Your task to perform on an android device: empty trash in google photos Image 0: 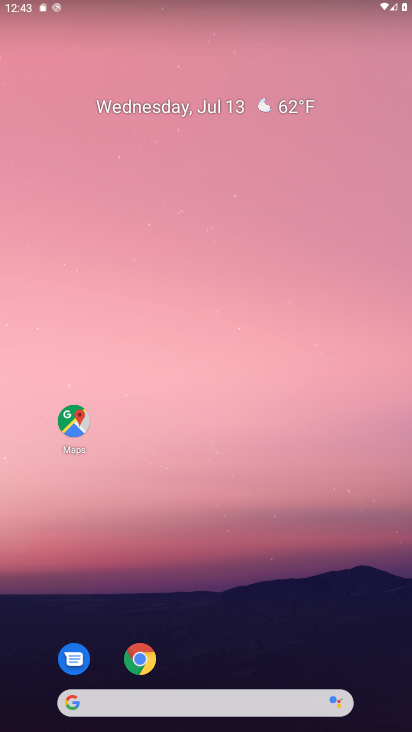
Step 0: drag from (253, 712) to (201, 320)
Your task to perform on an android device: empty trash in google photos Image 1: 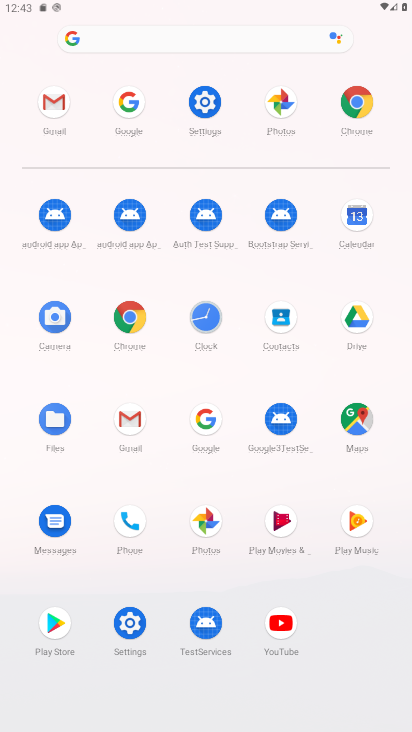
Step 1: click (198, 522)
Your task to perform on an android device: empty trash in google photos Image 2: 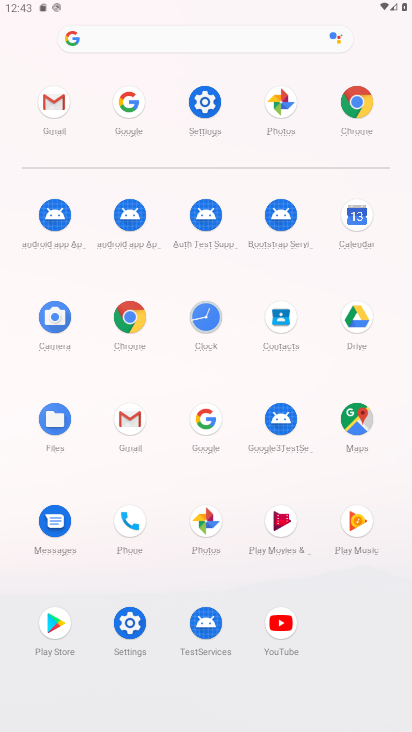
Step 2: click (199, 522)
Your task to perform on an android device: empty trash in google photos Image 3: 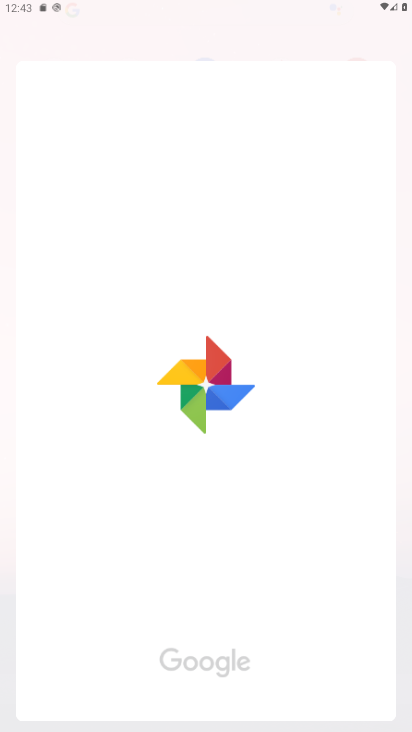
Step 3: click (201, 522)
Your task to perform on an android device: empty trash in google photos Image 4: 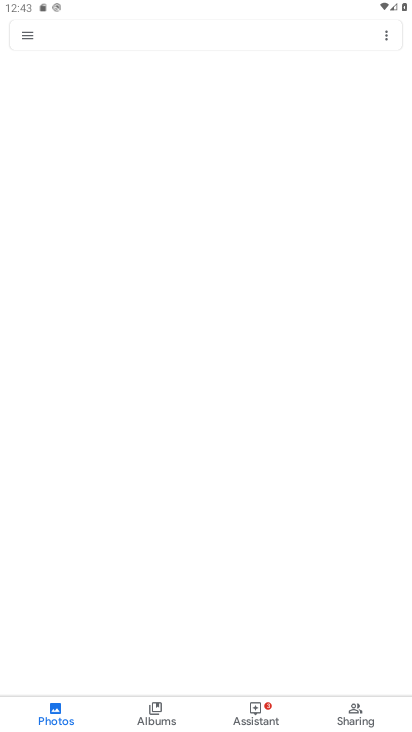
Step 4: click (202, 521)
Your task to perform on an android device: empty trash in google photos Image 5: 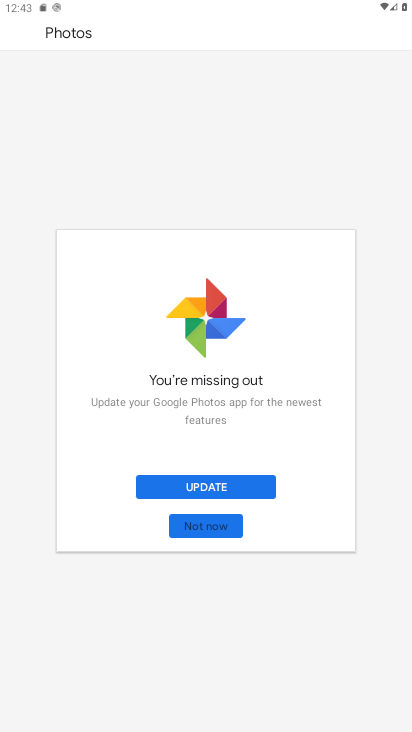
Step 5: click (198, 530)
Your task to perform on an android device: empty trash in google photos Image 6: 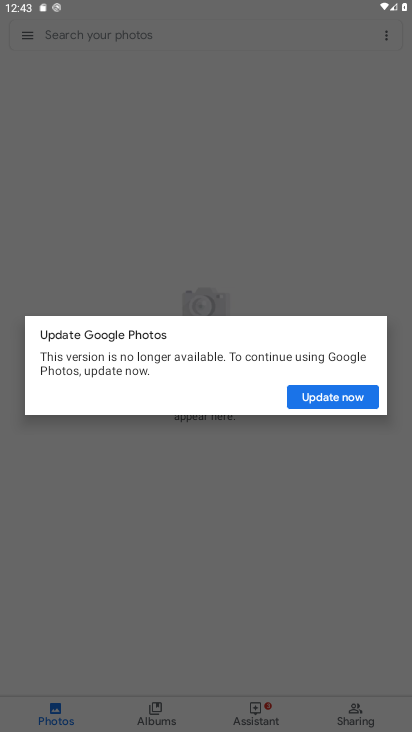
Step 6: click (237, 239)
Your task to perform on an android device: empty trash in google photos Image 7: 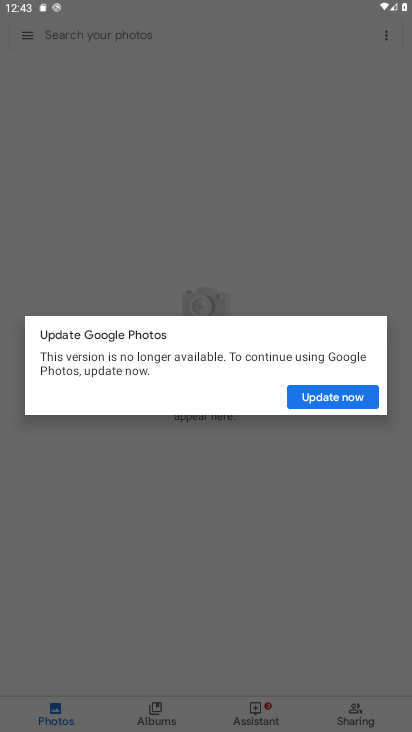
Step 7: click (62, 709)
Your task to perform on an android device: empty trash in google photos Image 8: 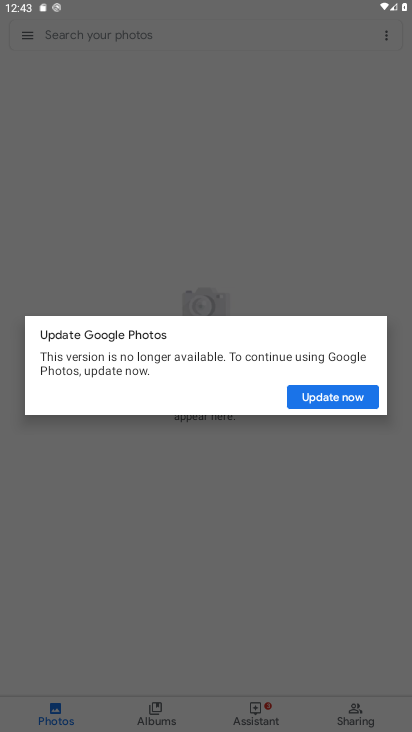
Step 8: click (320, 150)
Your task to perform on an android device: empty trash in google photos Image 9: 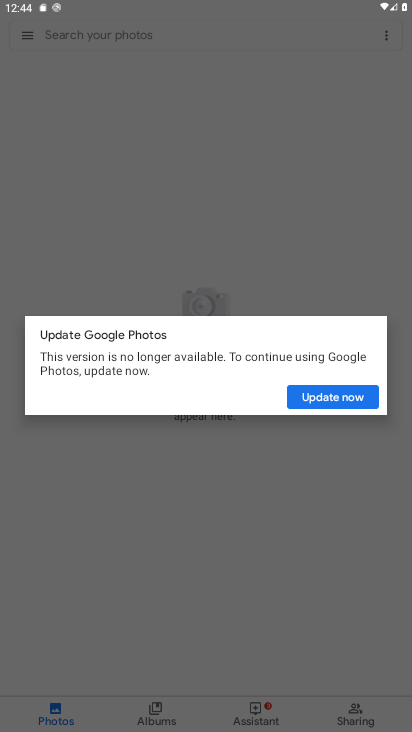
Step 9: press back button
Your task to perform on an android device: empty trash in google photos Image 10: 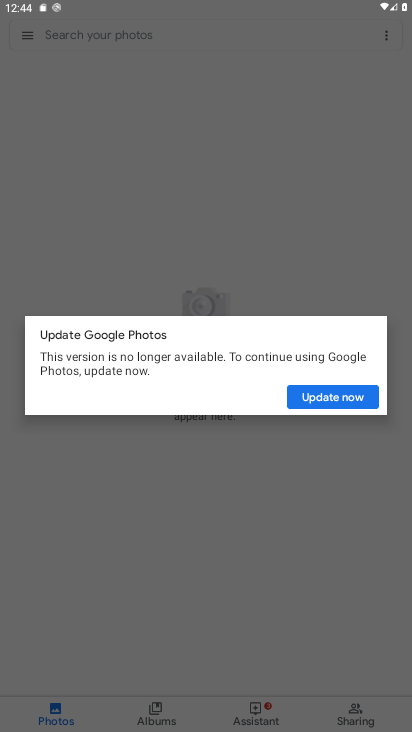
Step 10: press home button
Your task to perform on an android device: empty trash in google photos Image 11: 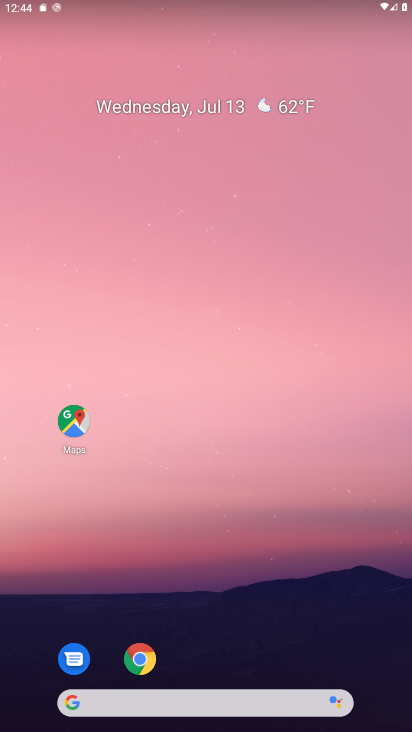
Step 11: drag from (237, 619) to (190, 155)
Your task to perform on an android device: empty trash in google photos Image 12: 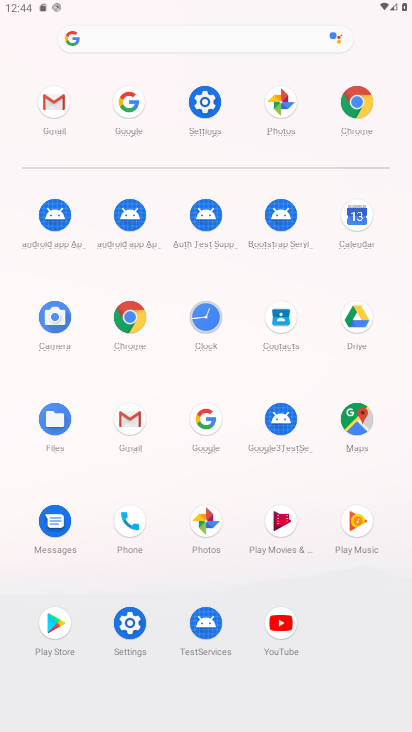
Step 12: click (212, 523)
Your task to perform on an android device: empty trash in google photos Image 13: 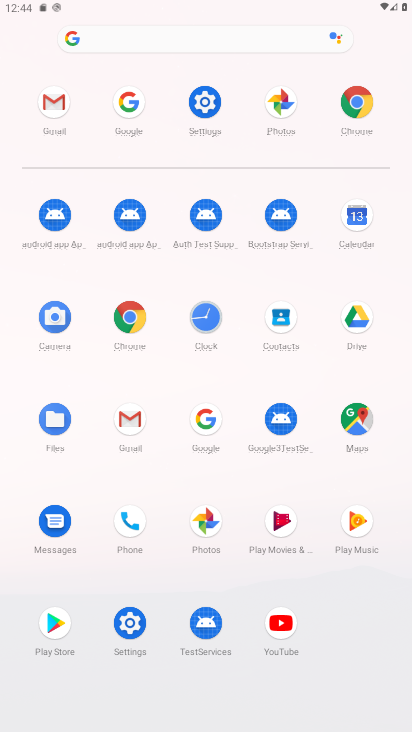
Step 13: click (213, 523)
Your task to perform on an android device: empty trash in google photos Image 14: 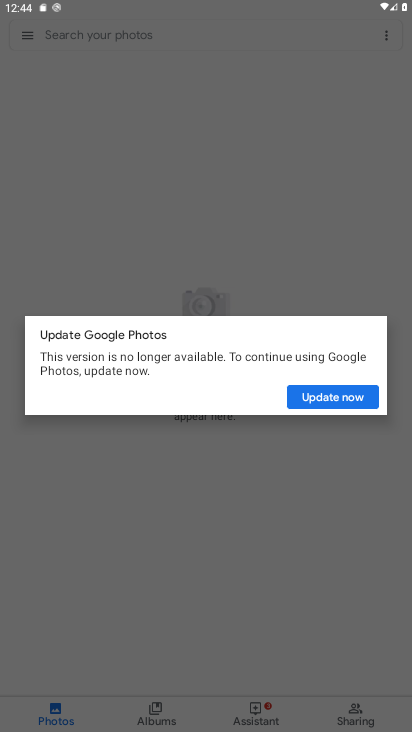
Step 14: click (345, 381)
Your task to perform on an android device: empty trash in google photos Image 15: 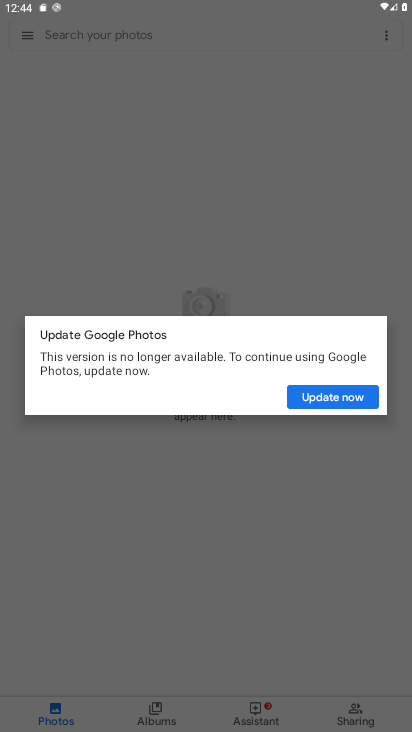
Step 15: click (339, 385)
Your task to perform on an android device: empty trash in google photos Image 16: 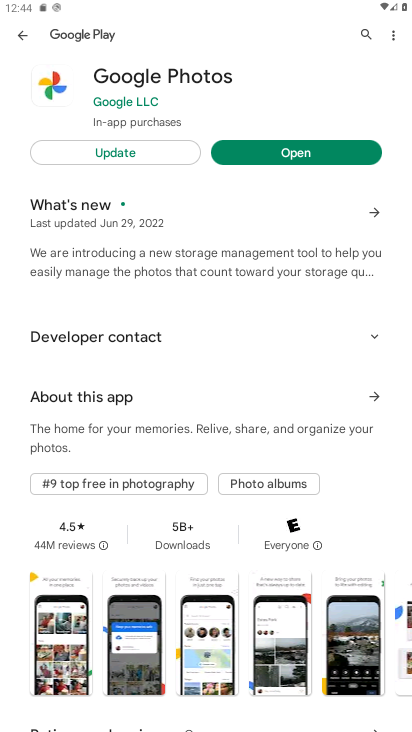
Step 16: click (160, 146)
Your task to perform on an android device: empty trash in google photos Image 17: 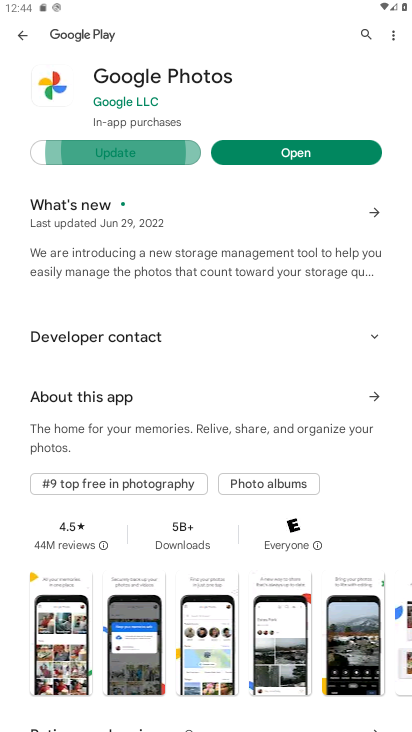
Step 17: click (158, 146)
Your task to perform on an android device: empty trash in google photos Image 18: 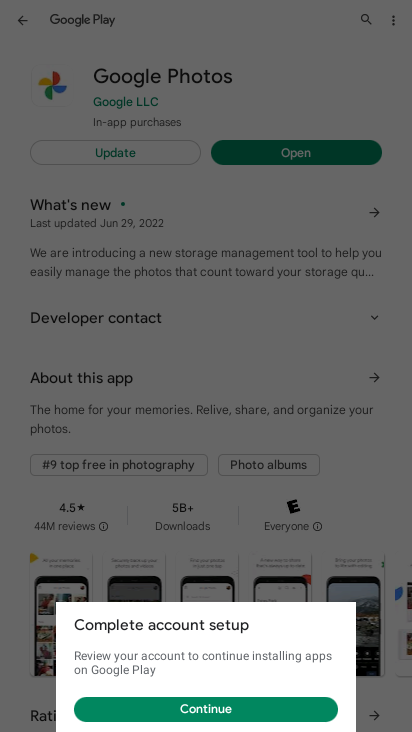
Step 18: click (237, 355)
Your task to perform on an android device: empty trash in google photos Image 19: 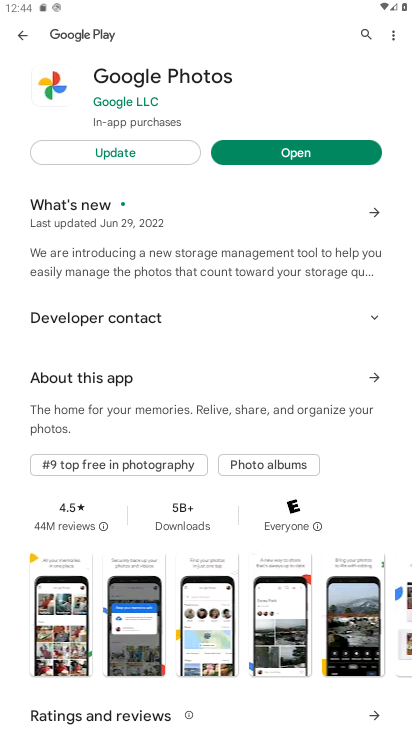
Step 19: click (250, 718)
Your task to perform on an android device: empty trash in google photos Image 20: 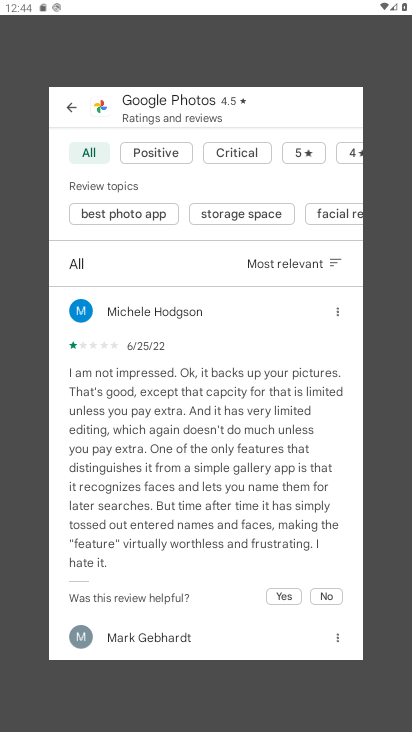
Step 20: drag from (216, 295) to (217, 543)
Your task to perform on an android device: empty trash in google photos Image 21: 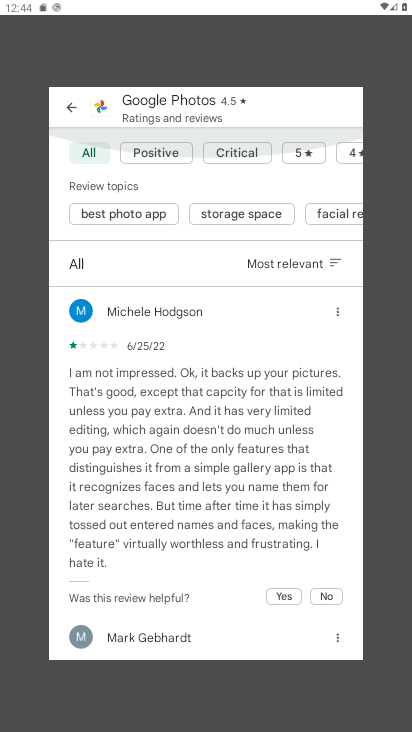
Step 21: drag from (211, 289) to (220, 372)
Your task to perform on an android device: empty trash in google photos Image 22: 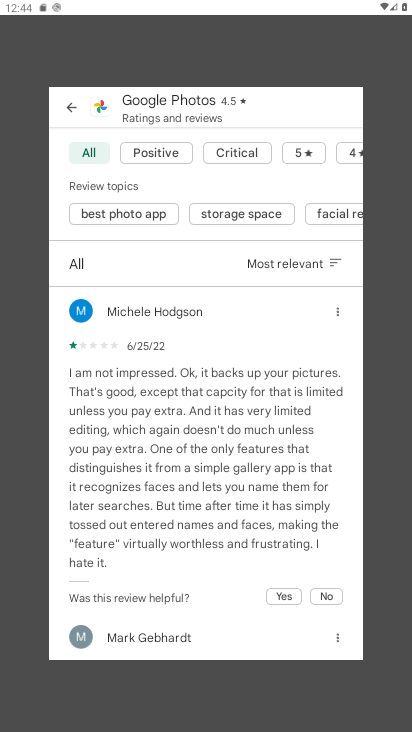
Step 22: click (71, 97)
Your task to perform on an android device: empty trash in google photos Image 23: 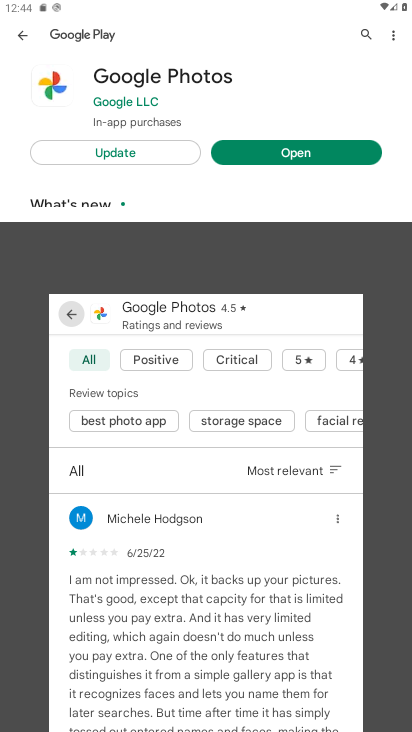
Step 23: click (71, 97)
Your task to perform on an android device: empty trash in google photos Image 24: 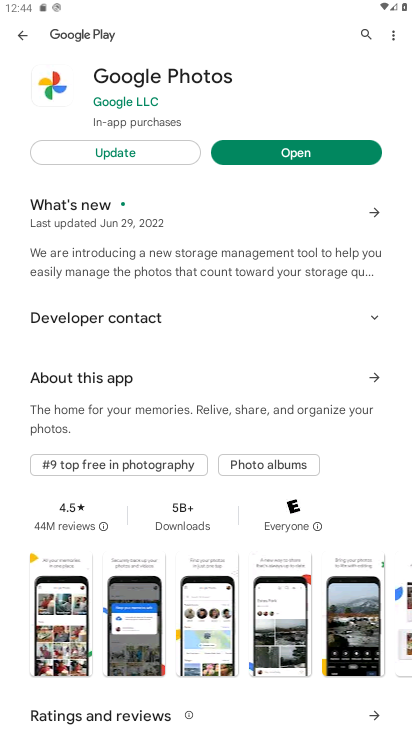
Step 24: click (67, 102)
Your task to perform on an android device: empty trash in google photos Image 25: 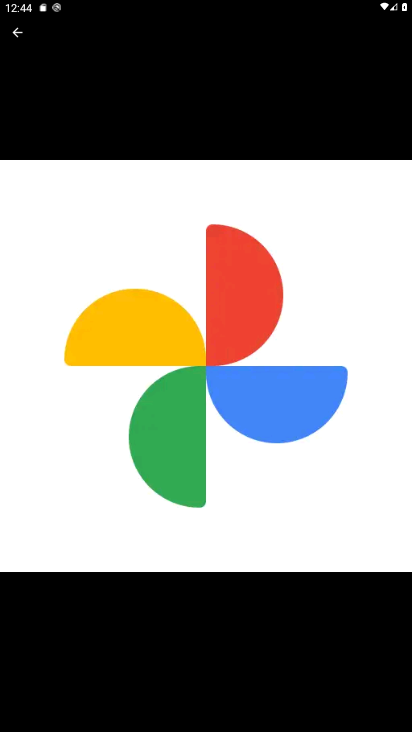
Step 25: click (274, 82)
Your task to perform on an android device: empty trash in google photos Image 26: 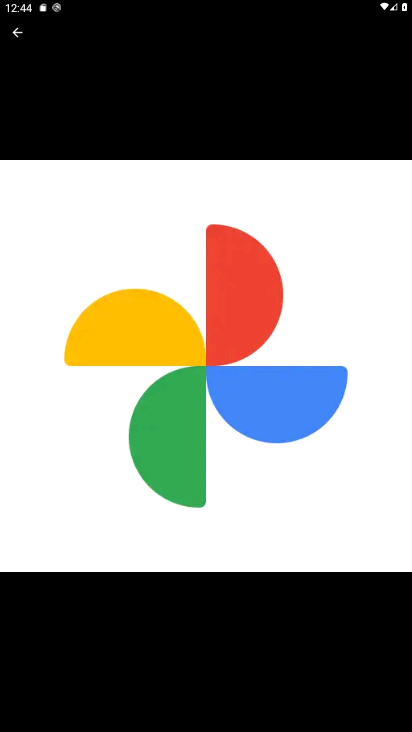
Step 26: click (268, 88)
Your task to perform on an android device: empty trash in google photos Image 27: 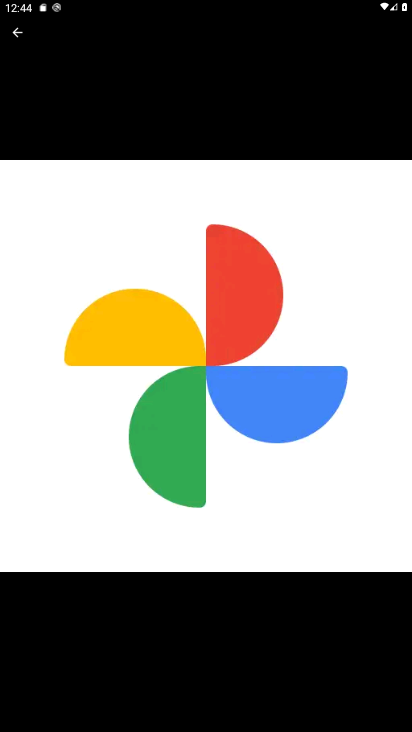
Step 27: click (154, 118)
Your task to perform on an android device: empty trash in google photos Image 28: 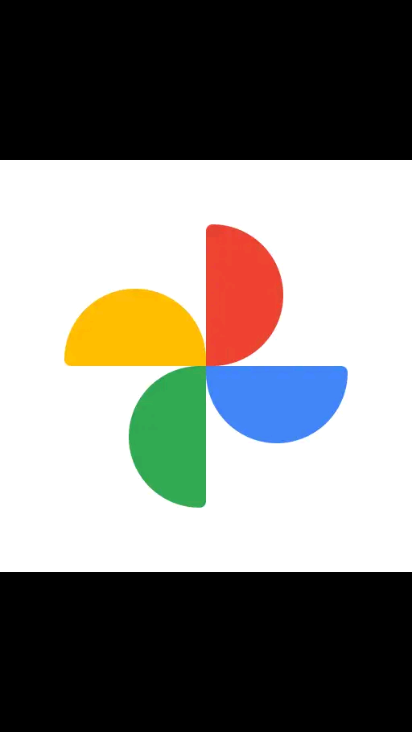
Step 28: click (231, 73)
Your task to perform on an android device: empty trash in google photos Image 29: 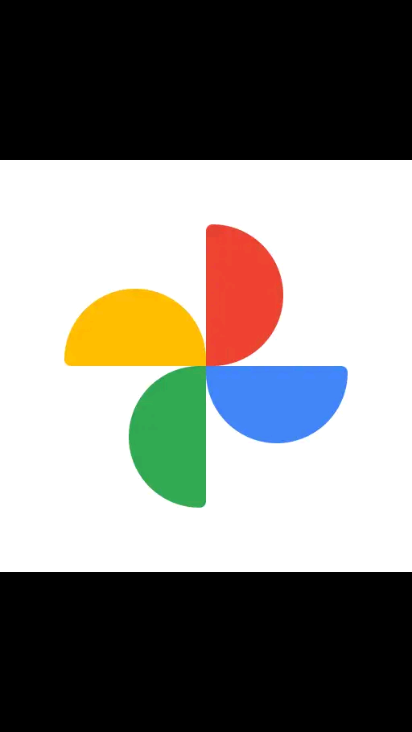
Step 29: click (231, 73)
Your task to perform on an android device: empty trash in google photos Image 30: 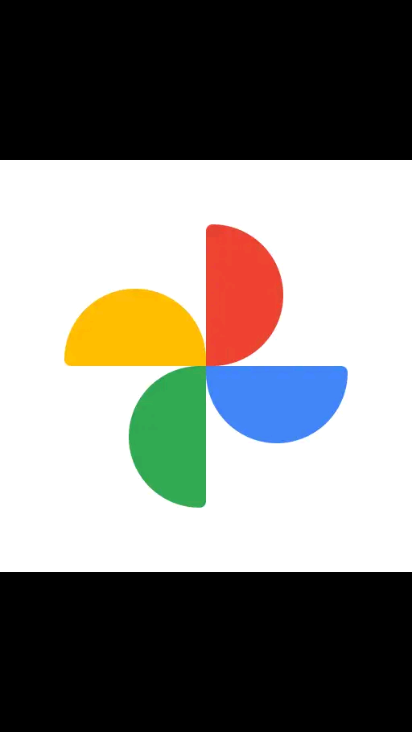
Step 30: press back button
Your task to perform on an android device: empty trash in google photos Image 31: 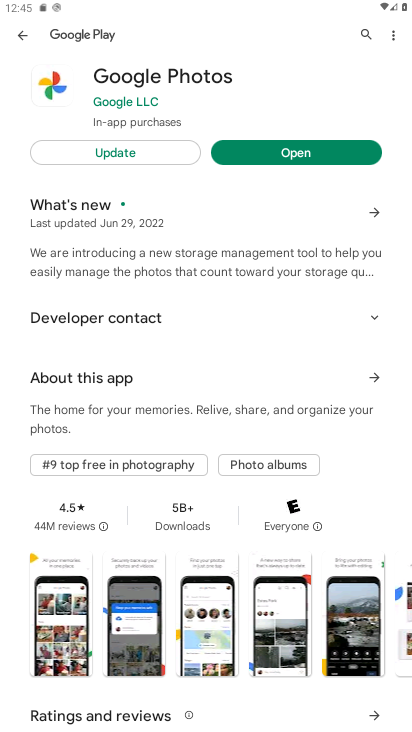
Step 31: click (141, 142)
Your task to perform on an android device: empty trash in google photos Image 32: 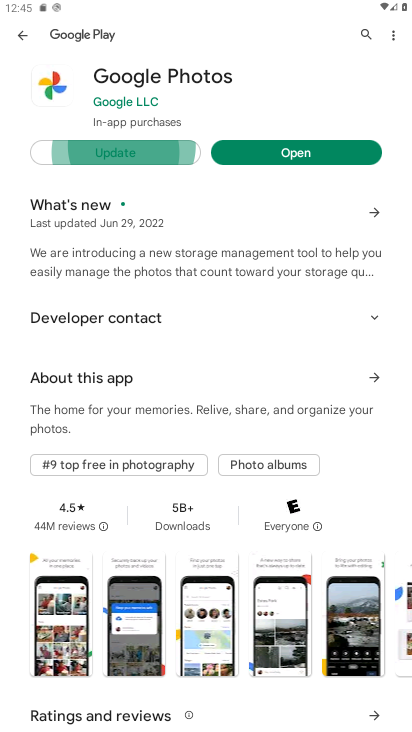
Step 32: click (140, 143)
Your task to perform on an android device: empty trash in google photos Image 33: 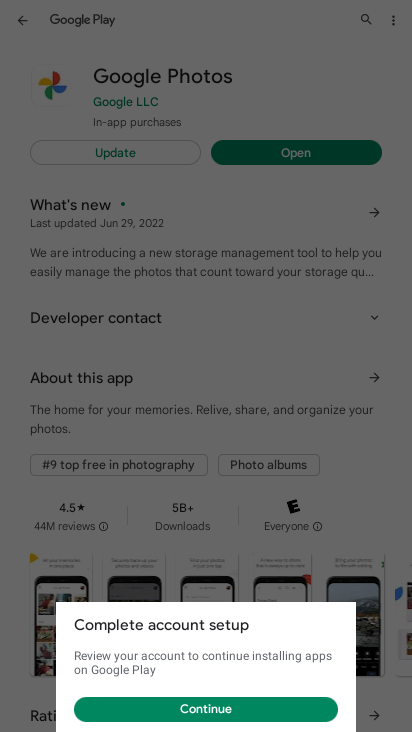
Step 33: click (279, 154)
Your task to perform on an android device: empty trash in google photos Image 34: 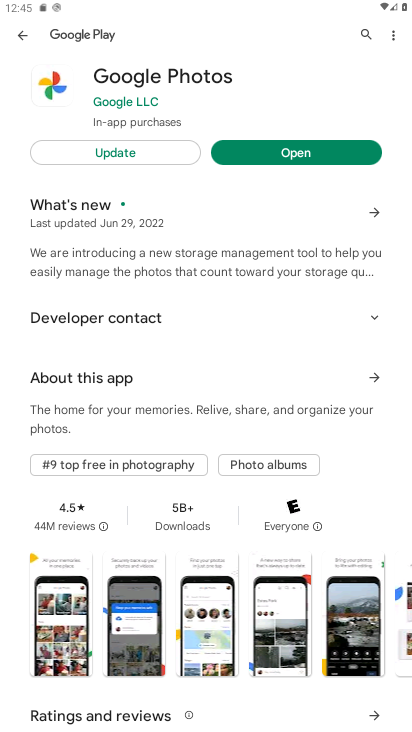
Step 34: click (279, 154)
Your task to perform on an android device: empty trash in google photos Image 35: 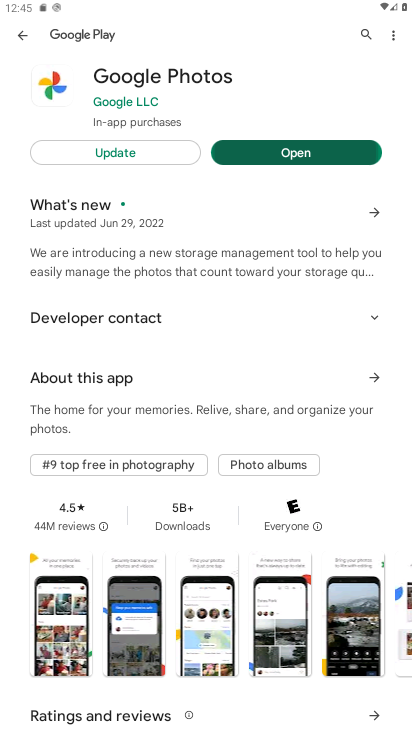
Step 35: click (282, 153)
Your task to perform on an android device: empty trash in google photos Image 36: 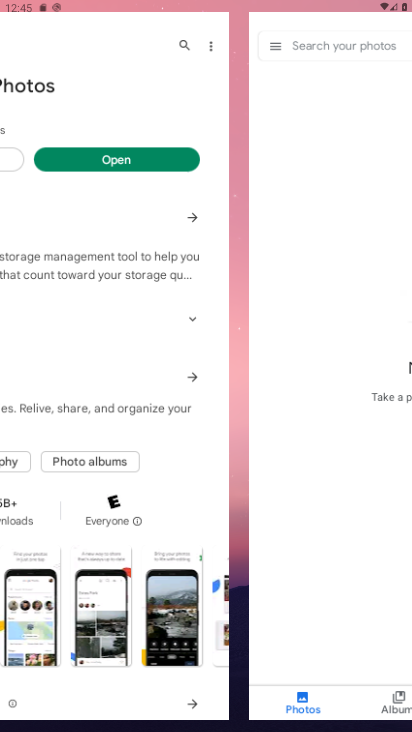
Step 36: click (283, 157)
Your task to perform on an android device: empty trash in google photos Image 37: 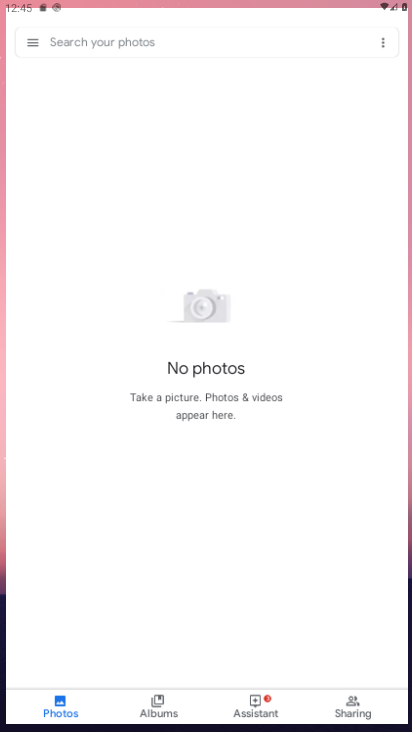
Step 37: click (283, 157)
Your task to perform on an android device: empty trash in google photos Image 38: 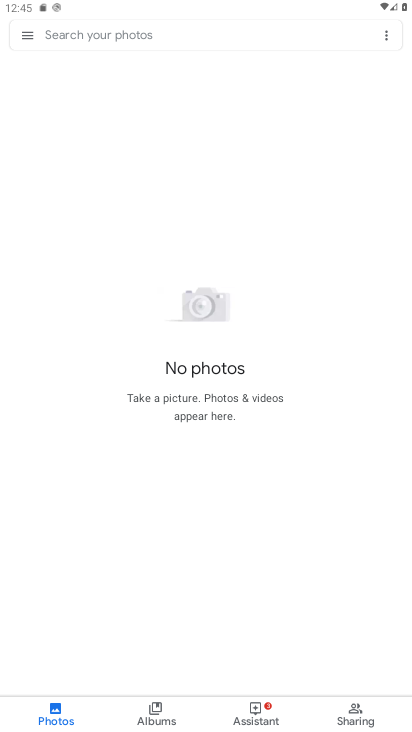
Step 38: click (282, 158)
Your task to perform on an android device: empty trash in google photos Image 39: 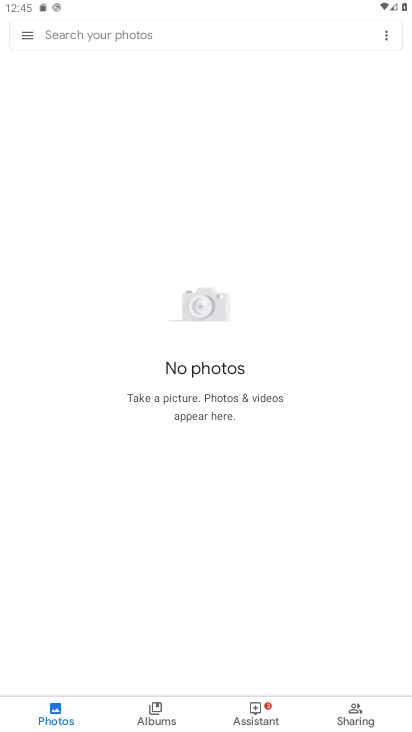
Step 39: task complete